Your task to perform on an android device: turn on airplane mode Image 0: 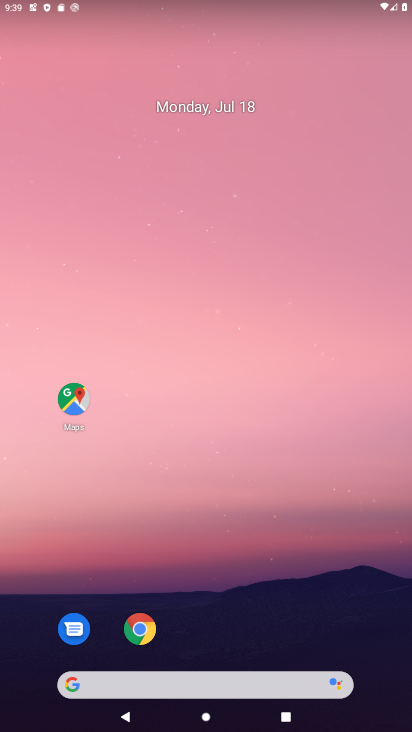
Step 0: drag from (336, 612) to (314, 142)
Your task to perform on an android device: turn on airplane mode Image 1: 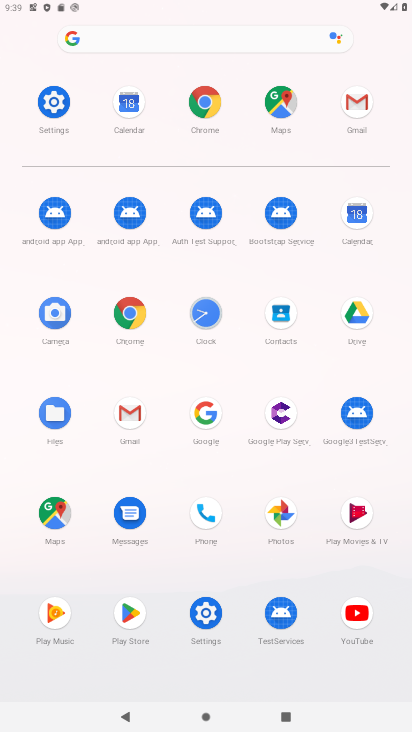
Step 1: click (43, 102)
Your task to perform on an android device: turn on airplane mode Image 2: 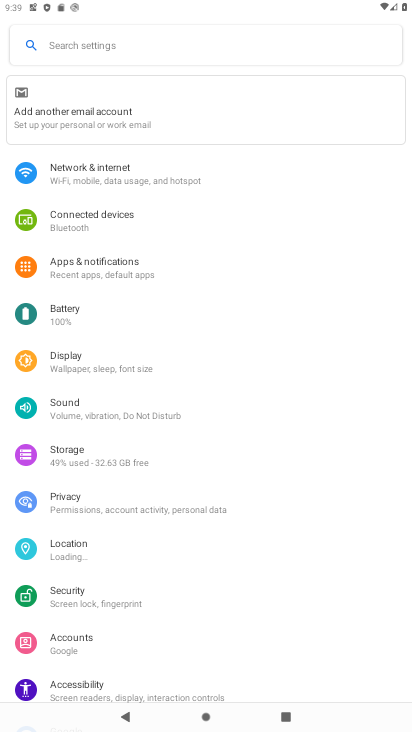
Step 2: click (142, 177)
Your task to perform on an android device: turn on airplane mode Image 3: 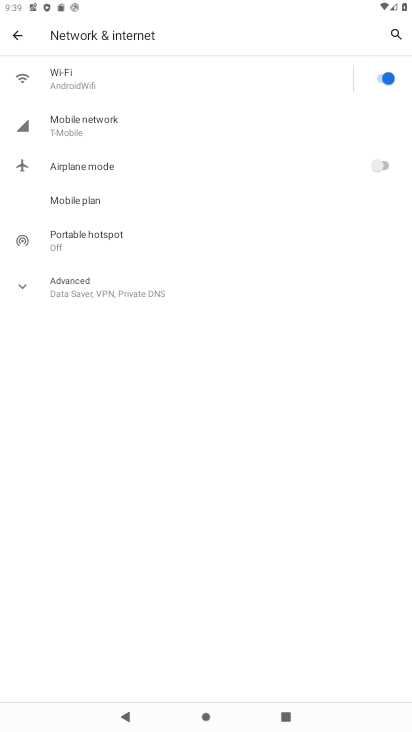
Step 3: click (380, 160)
Your task to perform on an android device: turn on airplane mode Image 4: 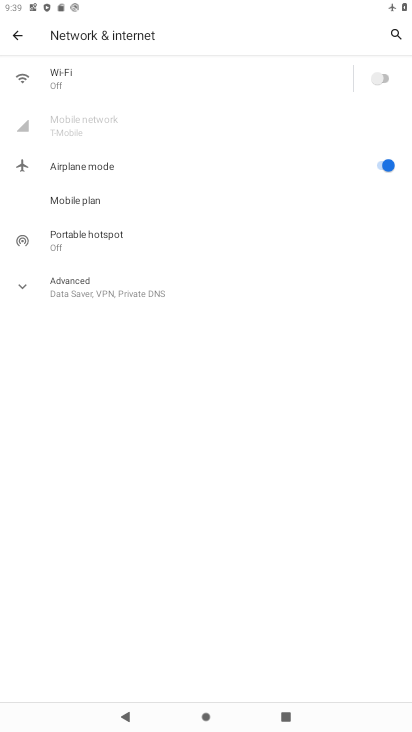
Step 4: task complete